Your task to perform on an android device: Go to network settings Image 0: 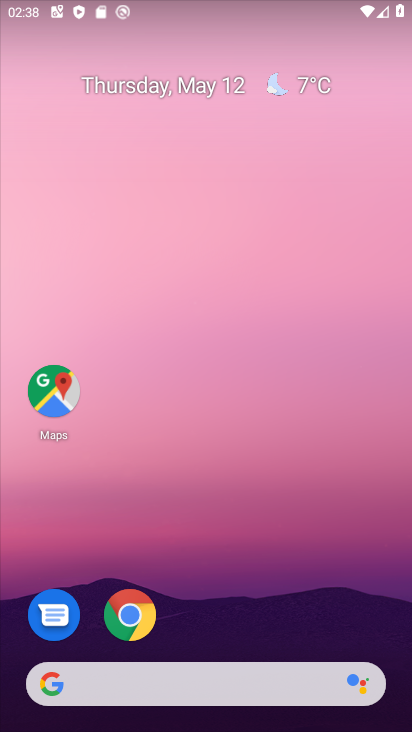
Step 0: drag from (218, 689) to (197, 173)
Your task to perform on an android device: Go to network settings Image 1: 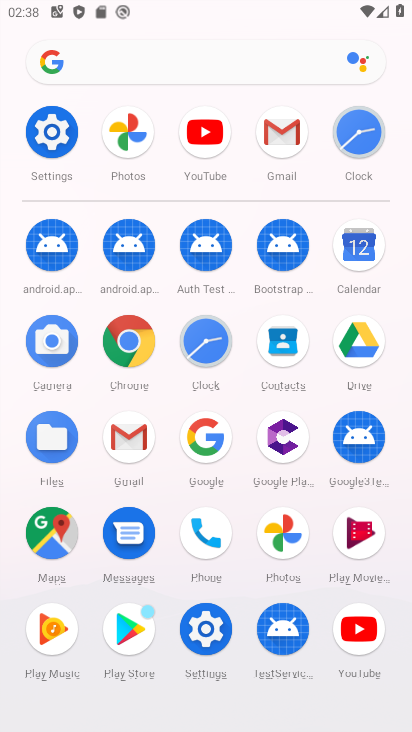
Step 1: click (26, 129)
Your task to perform on an android device: Go to network settings Image 2: 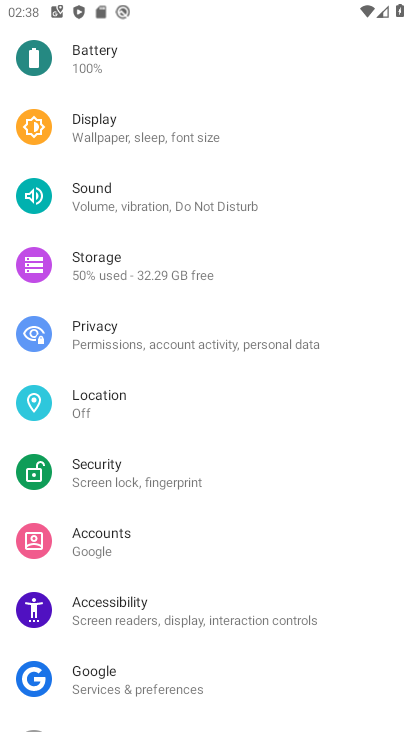
Step 2: drag from (127, 93) to (145, 181)
Your task to perform on an android device: Go to network settings Image 3: 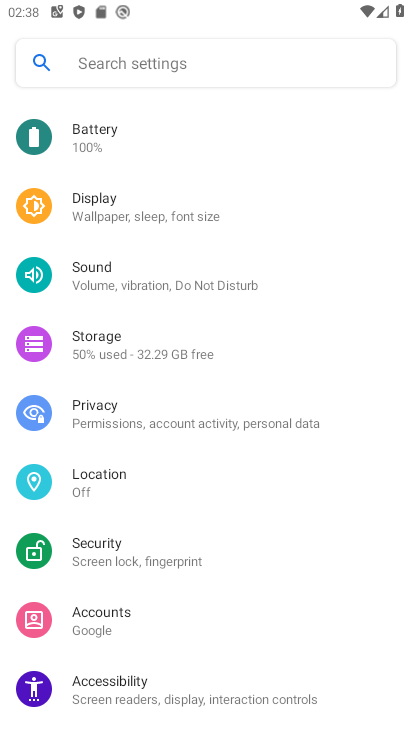
Step 3: drag from (148, 138) to (180, 449)
Your task to perform on an android device: Go to network settings Image 4: 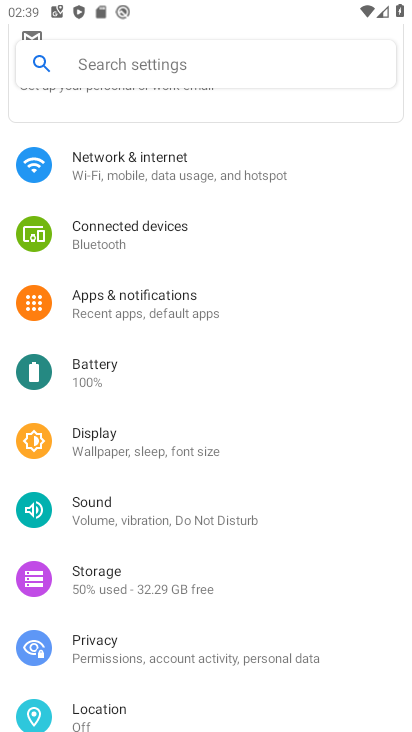
Step 4: click (134, 184)
Your task to perform on an android device: Go to network settings Image 5: 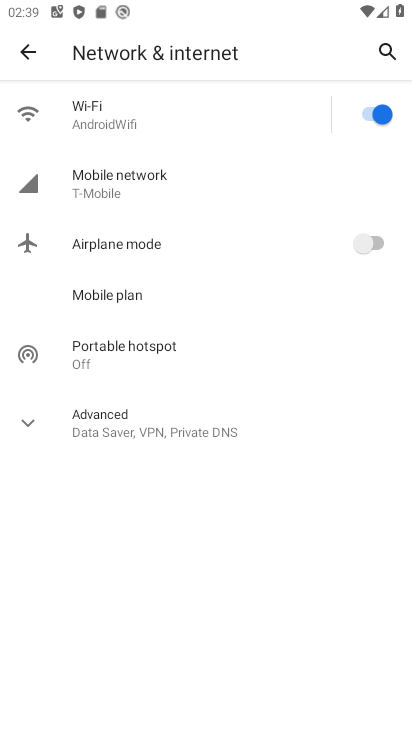
Step 5: task complete